Your task to perform on an android device: Show me popular games on the Play Store Image 0: 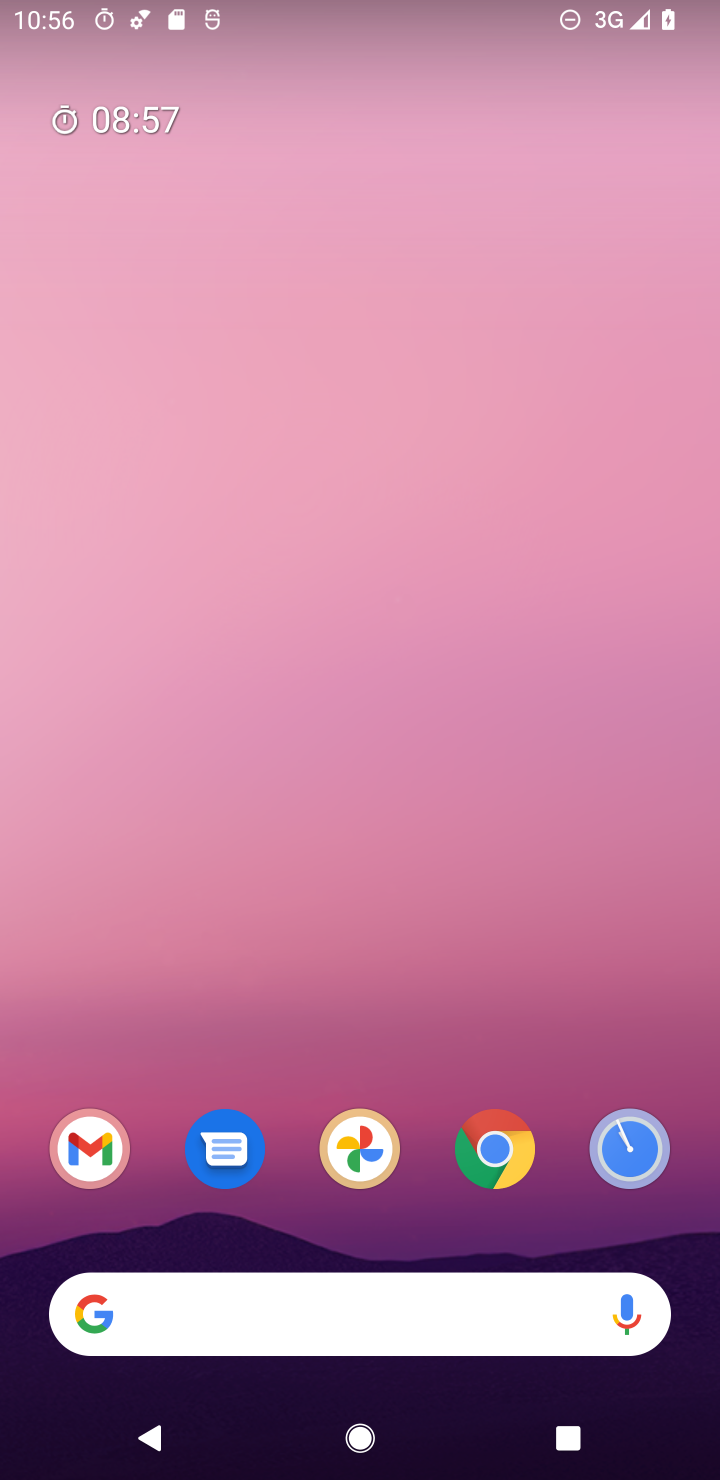
Step 0: drag from (300, 708) to (305, 495)
Your task to perform on an android device: Show me popular games on the Play Store Image 1: 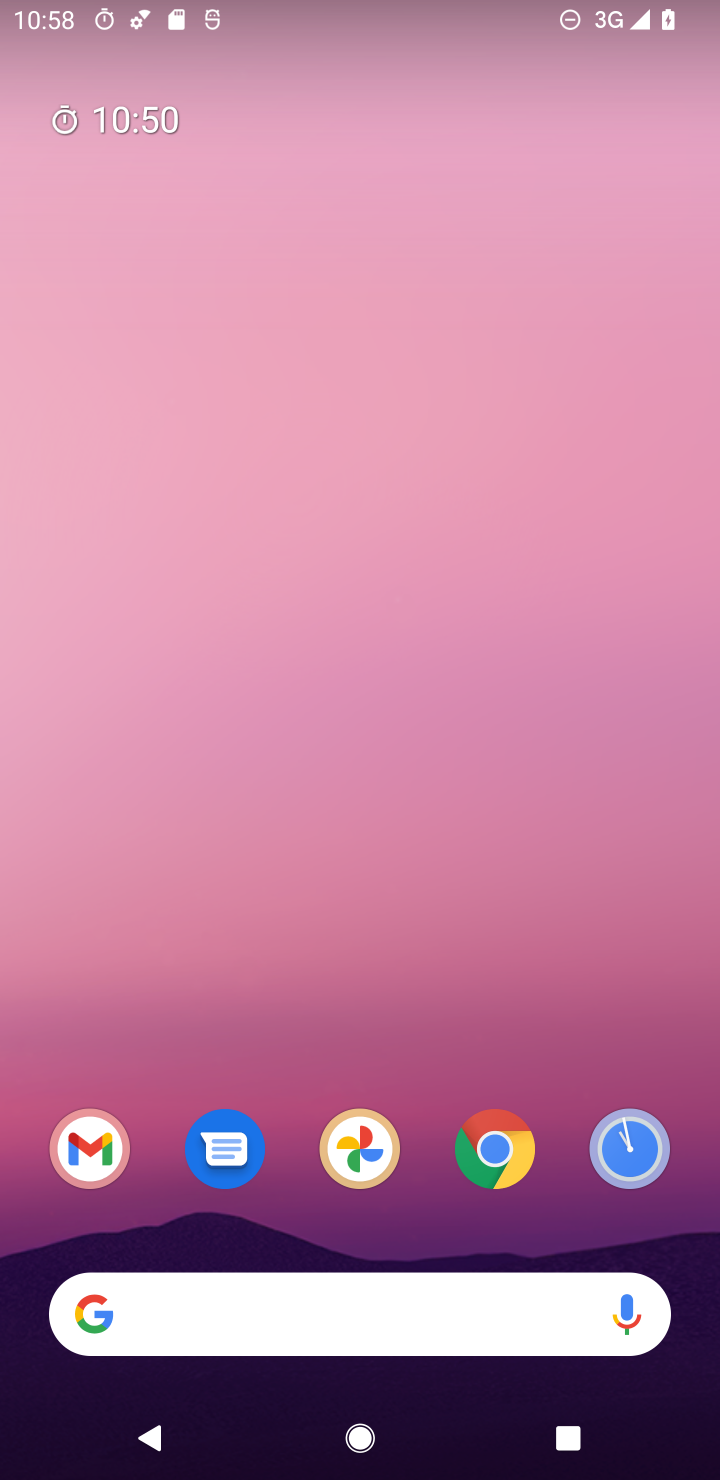
Step 1: drag from (342, 1276) to (290, 361)
Your task to perform on an android device: Show me popular games on the Play Store Image 2: 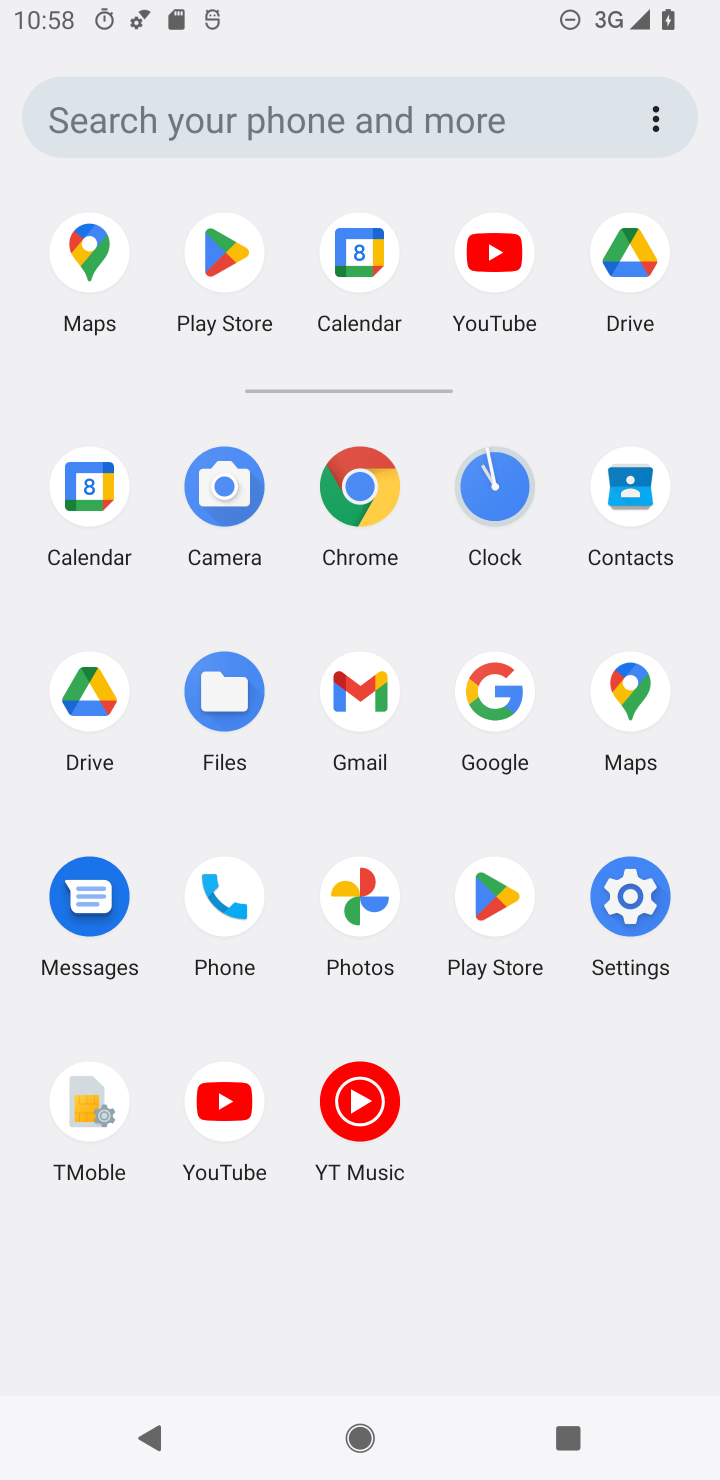
Step 2: click (485, 917)
Your task to perform on an android device: Show me popular games on the Play Store Image 3: 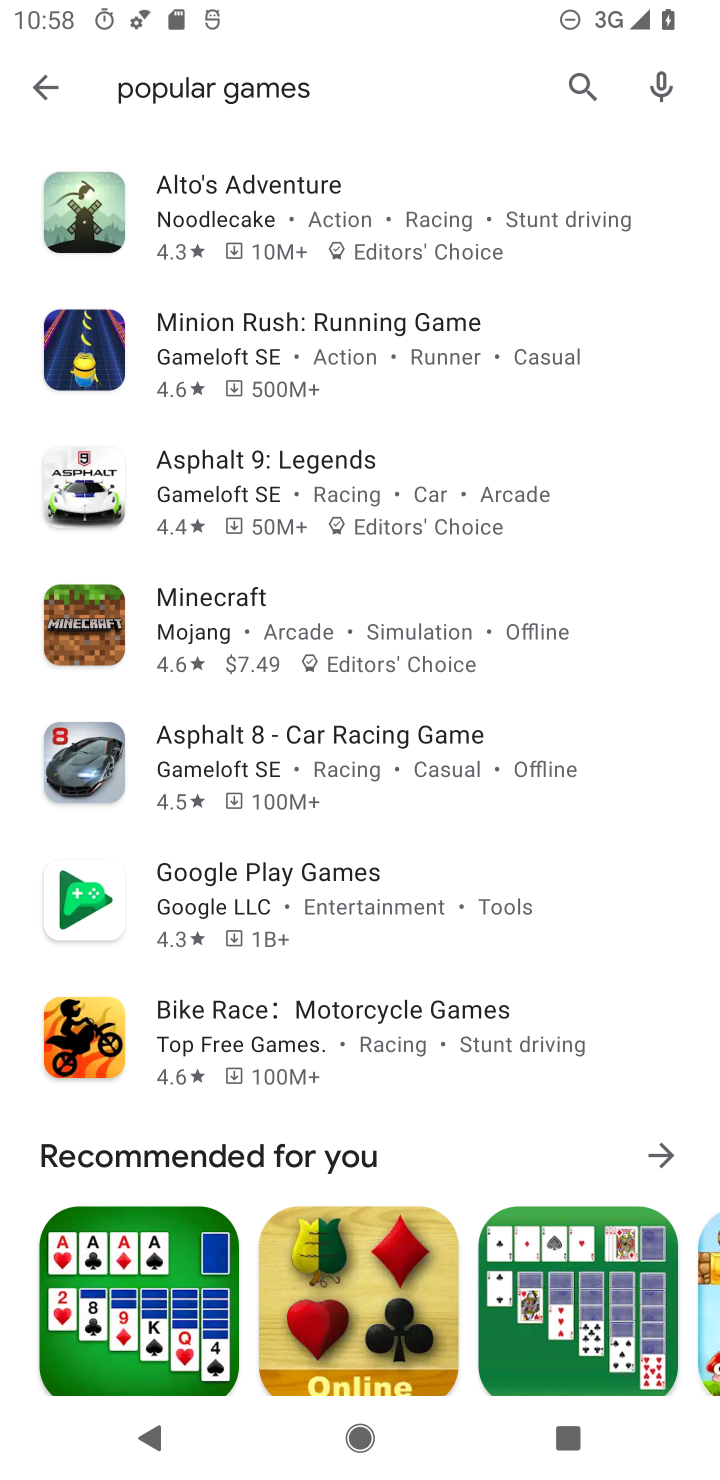
Step 3: task complete